Your task to perform on an android device: find which apps use the phone's location Image 0: 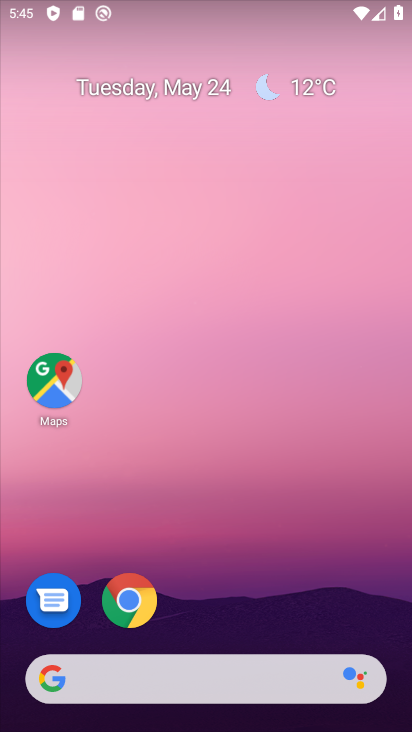
Step 0: drag from (313, 688) to (337, 350)
Your task to perform on an android device: find which apps use the phone's location Image 1: 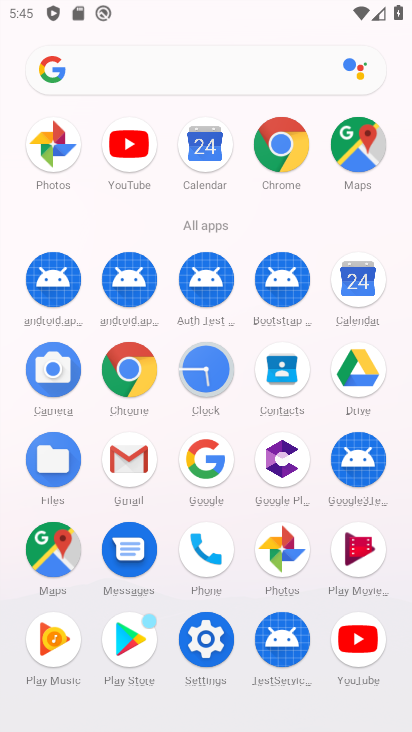
Step 1: drag from (328, 583) to (304, 245)
Your task to perform on an android device: find which apps use the phone's location Image 2: 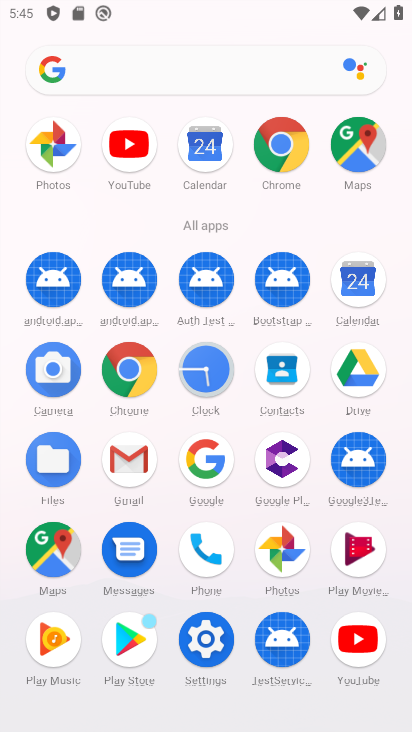
Step 2: click (202, 642)
Your task to perform on an android device: find which apps use the phone's location Image 3: 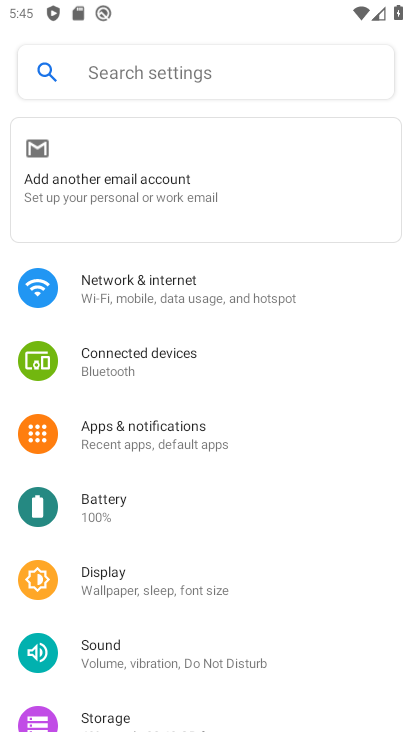
Step 3: drag from (163, 654) to (240, 30)
Your task to perform on an android device: find which apps use the phone's location Image 4: 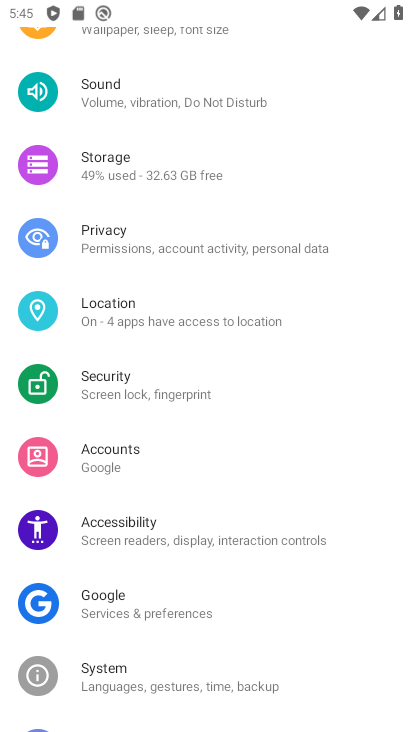
Step 4: drag from (149, 681) to (199, 308)
Your task to perform on an android device: find which apps use the phone's location Image 5: 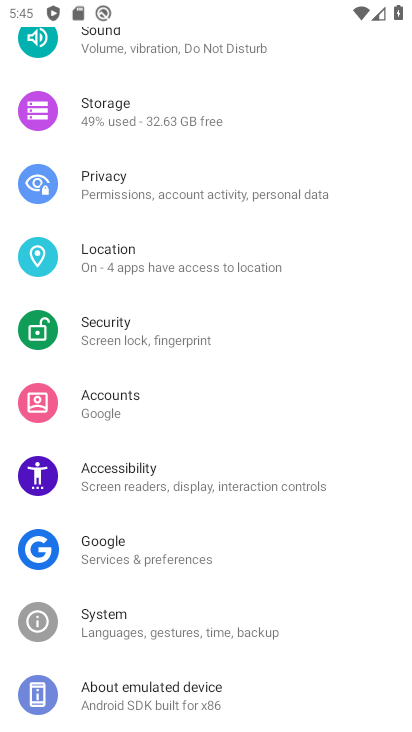
Step 5: click (136, 250)
Your task to perform on an android device: find which apps use the phone's location Image 6: 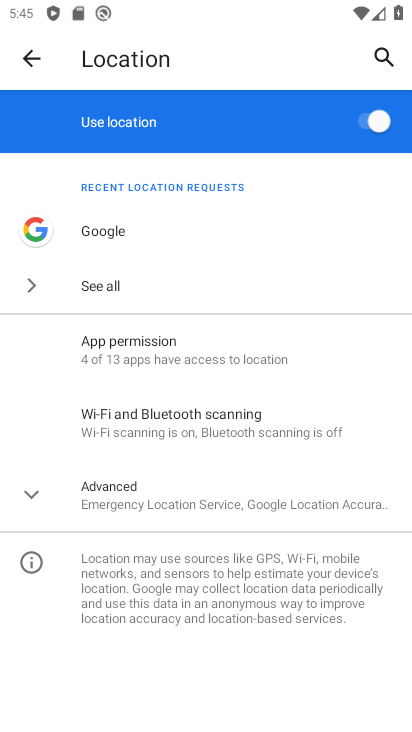
Step 6: task complete